Your task to perform on an android device: turn on bluetooth scan Image 0: 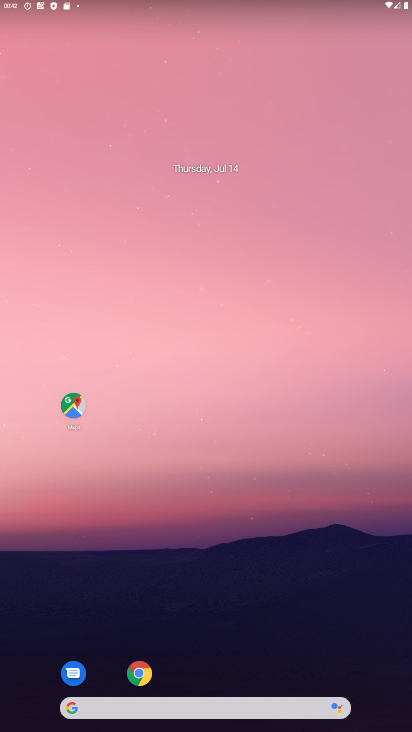
Step 0: drag from (213, 651) to (210, 145)
Your task to perform on an android device: turn on bluetooth scan Image 1: 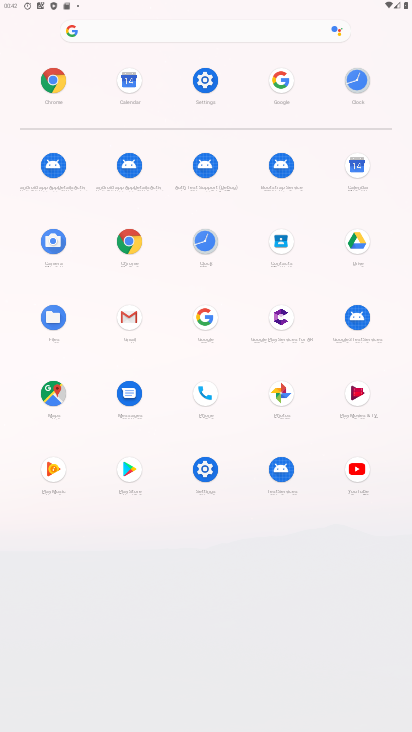
Step 1: click (217, 97)
Your task to perform on an android device: turn on bluetooth scan Image 2: 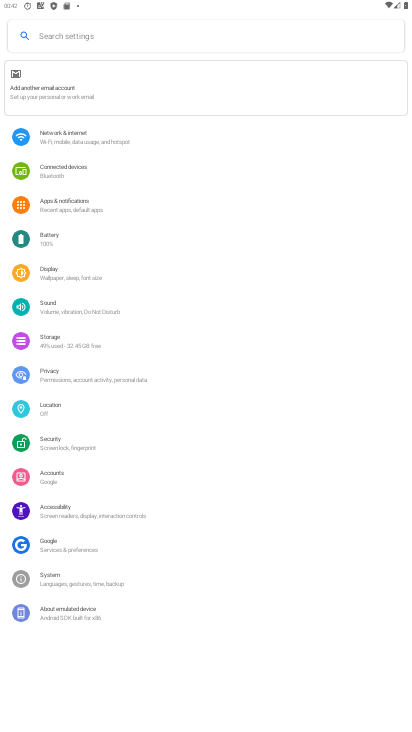
Step 2: click (88, 408)
Your task to perform on an android device: turn on bluetooth scan Image 3: 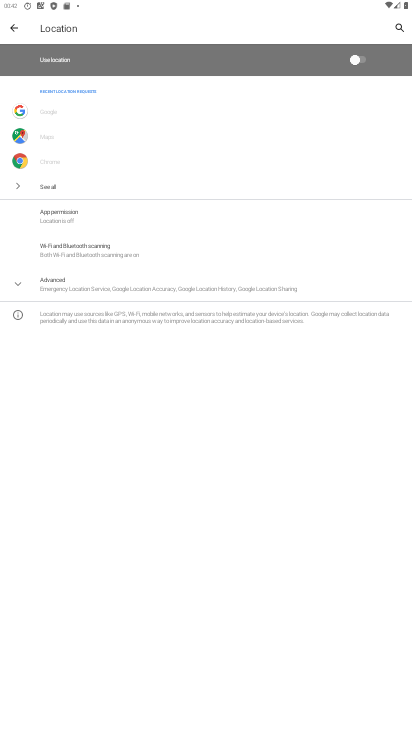
Step 3: click (94, 253)
Your task to perform on an android device: turn on bluetooth scan Image 4: 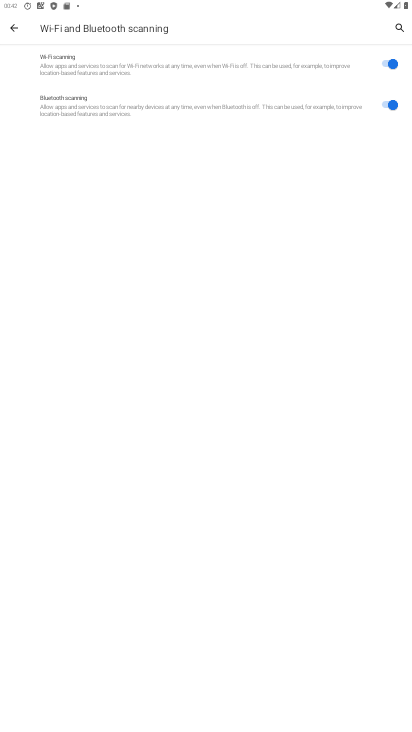
Step 4: task complete